Your task to perform on an android device: Go to location settings Image 0: 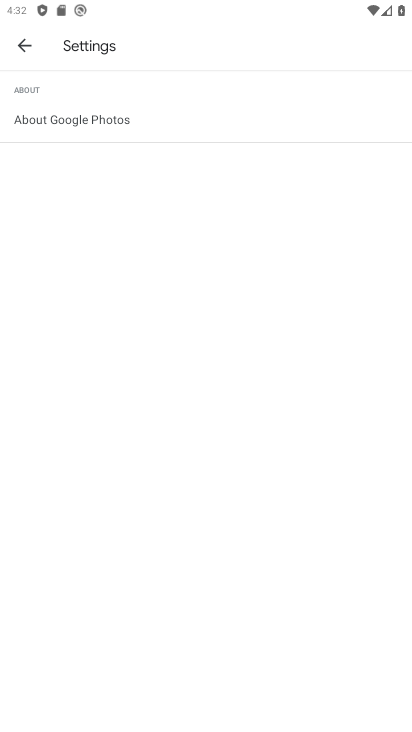
Step 0: press home button
Your task to perform on an android device: Go to location settings Image 1: 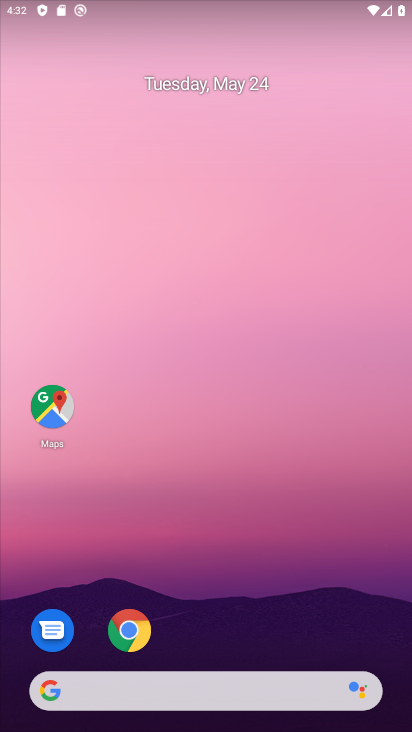
Step 1: drag from (168, 652) to (233, 13)
Your task to perform on an android device: Go to location settings Image 2: 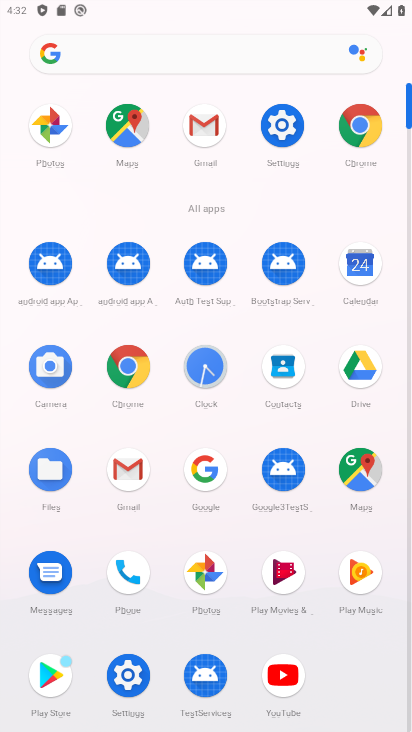
Step 2: click (268, 120)
Your task to perform on an android device: Go to location settings Image 3: 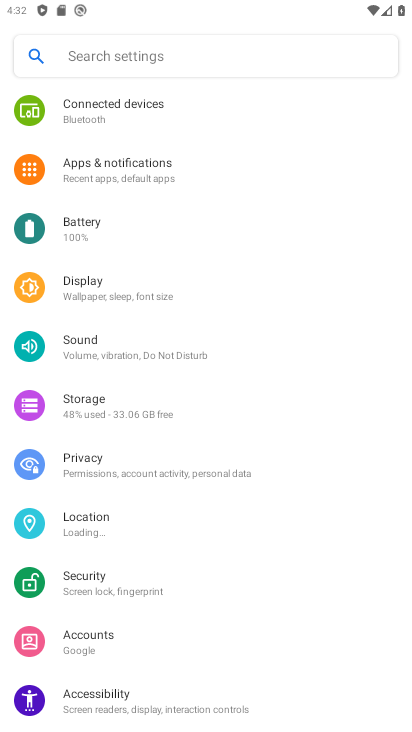
Step 3: click (101, 528)
Your task to perform on an android device: Go to location settings Image 4: 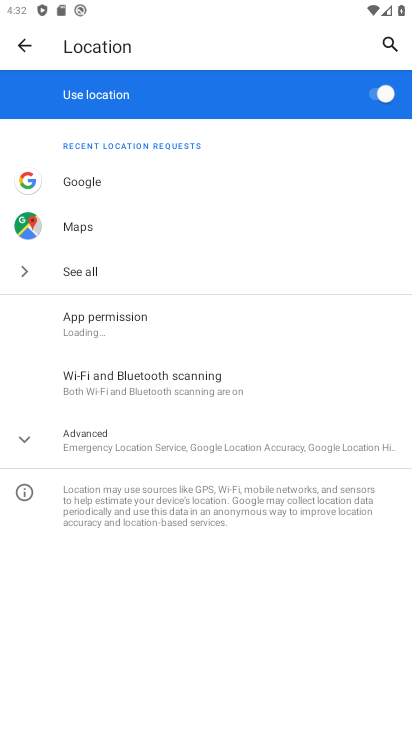
Step 4: task complete